Your task to perform on an android device: Show the shopping cart on newegg. Search for bose soundlink on newegg, select the first entry, add it to the cart, then select checkout. Image 0: 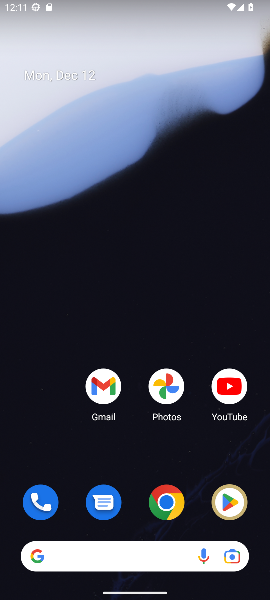
Step 0: click (166, 518)
Your task to perform on an android device: Show the shopping cart on newegg. Search for bose soundlink on newegg, select the first entry, add it to the cart, then select checkout. Image 1: 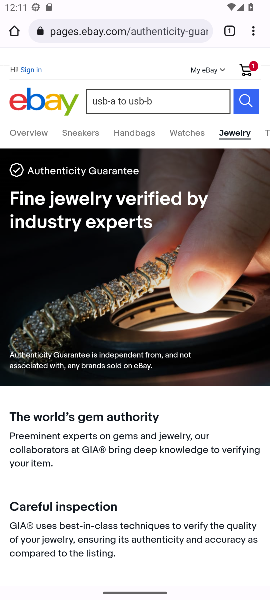
Step 1: click (144, 37)
Your task to perform on an android device: Show the shopping cart on newegg. Search for bose soundlink on newegg, select the first entry, add it to the cart, then select checkout. Image 2: 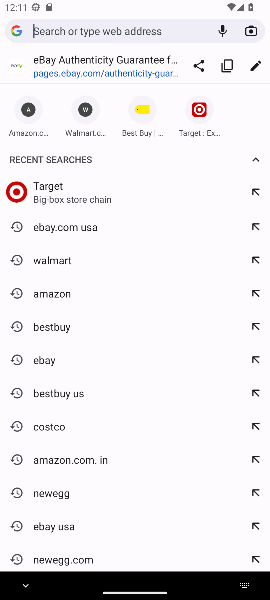
Step 2: type "newegg"
Your task to perform on an android device: Show the shopping cart on newegg. Search for bose soundlink on newegg, select the first entry, add it to the cart, then select checkout. Image 3: 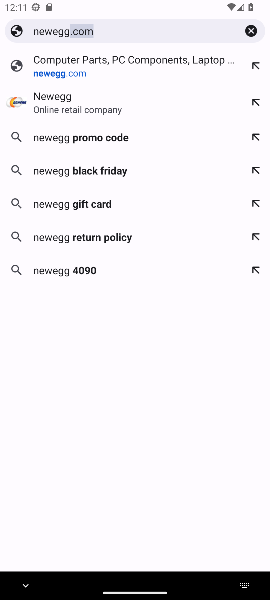
Step 3: click (128, 78)
Your task to perform on an android device: Show the shopping cart on newegg. Search for bose soundlink on newegg, select the first entry, add it to the cart, then select checkout. Image 4: 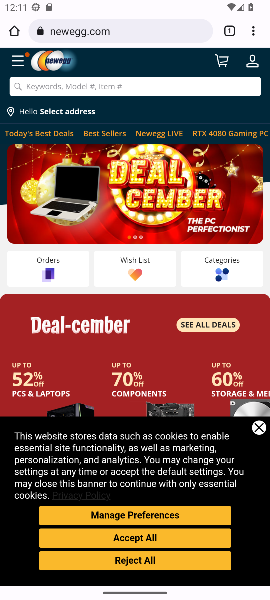
Step 4: click (141, 84)
Your task to perform on an android device: Show the shopping cart on newegg. Search for bose soundlink on newegg, select the first entry, add it to the cart, then select checkout. Image 5: 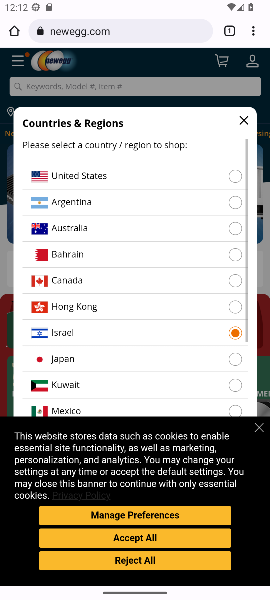
Step 5: click (173, 537)
Your task to perform on an android device: Show the shopping cart on newegg. Search for bose soundlink on newegg, select the first entry, add it to the cart, then select checkout. Image 6: 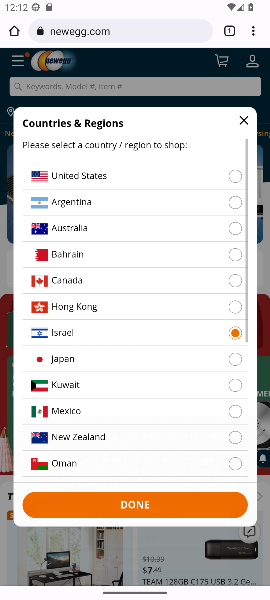
Step 6: click (186, 183)
Your task to perform on an android device: Show the shopping cart on newegg. Search for bose soundlink on newegg, select the first entry, add it to the cart, then select checkout. Image 7: 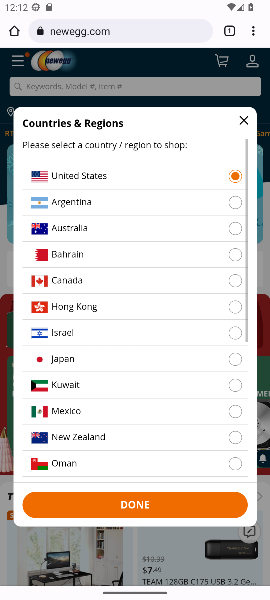
Step 7: click (193, 509)
Your task to perform on an android device: Show the shopping cart on newegg. Search for bose soundlink on newegg, select the first entry, add it to the cart, then select checkout. Image 8: 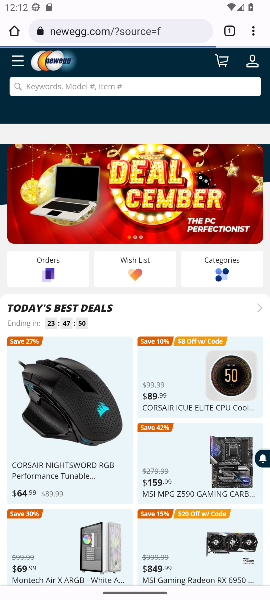
Step 8: click (171, 87)
Your task to perform on an android device: Show the shopping cart on newegg. Search for bose soundlink on newegg, select the first entry, add it to the cart, then select checkout. Image 9: 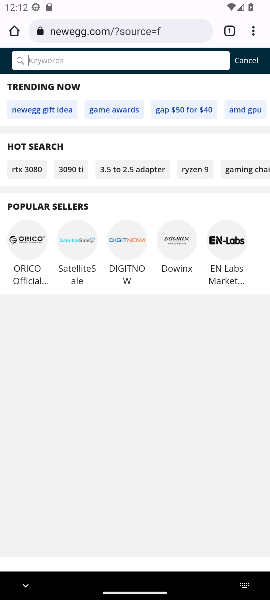
Step 9: type "bose soundlink"
Your task to perform on an android device: Show the shopping cart on newegg. Search for bose soundlink on newegg, select the first entry, add it to the cart, then select checkout. Image 10: 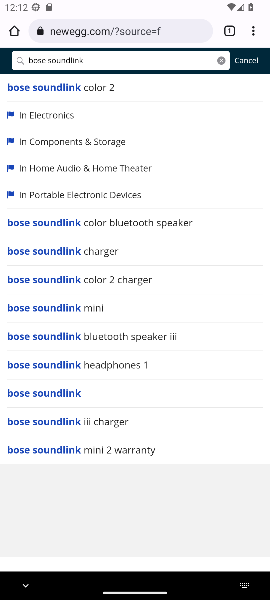
Step 10: click (68, 96)
Your task to perform on an android device: Show the shopping cart on newegg. Search for bose soundlink on newegg, select the first entry, add it to the cart, then select checkout. Image 11: 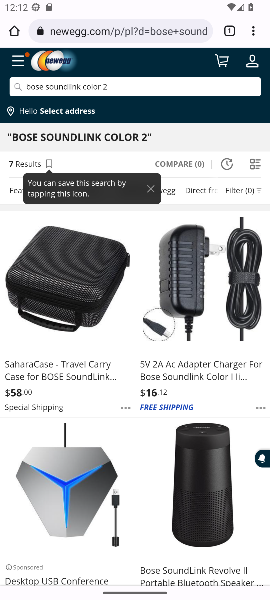
Step 11: click (81, 340)
Your task to perform on an android device: Show the shopping cart on newegg. Search for bose soundlink on newegg, select the first entry, add it to the cart, then select checkout. Image 12: 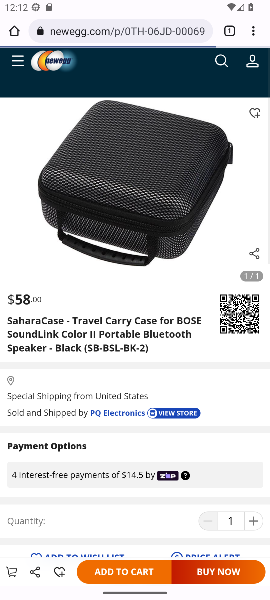
Step 12: click (155, 194)
Your task to perform on an android device: Show the shopping cart on newegg. Search for bose soundlink on newegg, select the first entry, add it to the cart, then select checkout. Image 13: 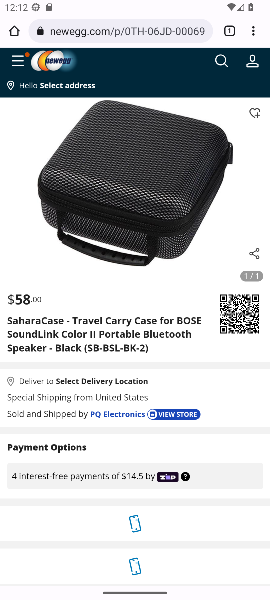
Step 13: click (133, 578)
Your task to perform on an android device: Show the shopping cart on newegg. Search for bose soundlink on newegg, select the first entry, add it to the cart, then select checkout. Image 14: 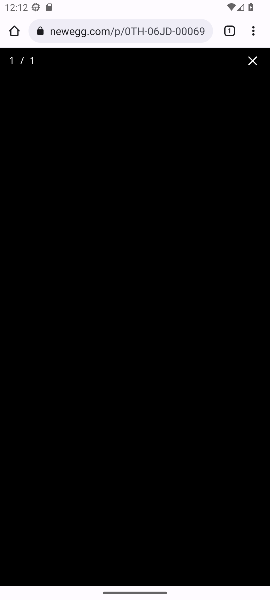
Step 14: task complete